Your task to perform on an android device: Go to battery settings Image 0: 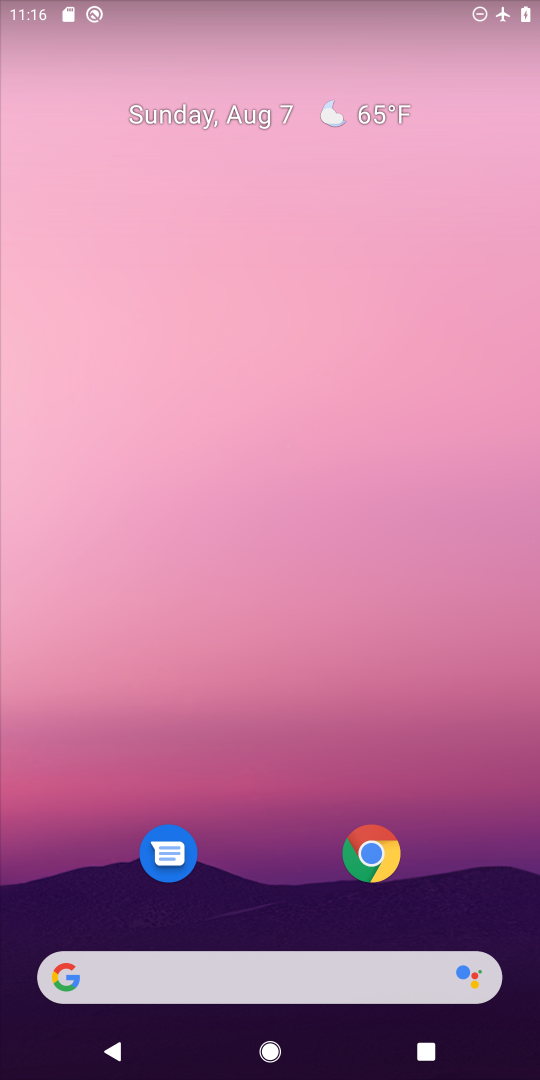
Step 0: drag from (298, 897) to (281, 31)
Your task to perform on an android device: Go to battery settings Image 1: 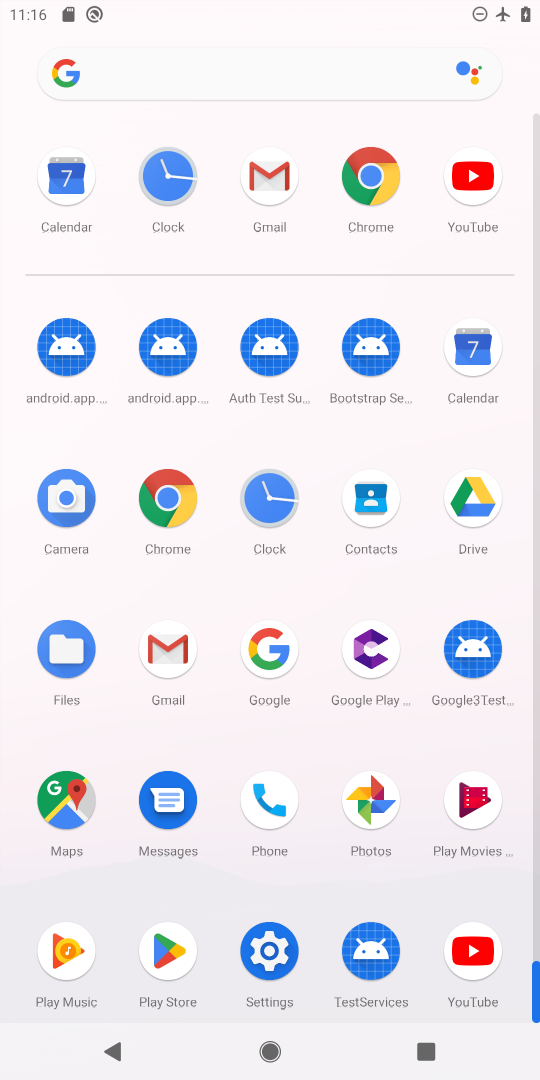
Step 1: click (248, 951)
Your task to perform on an android device: Go to battery settings Image 2: 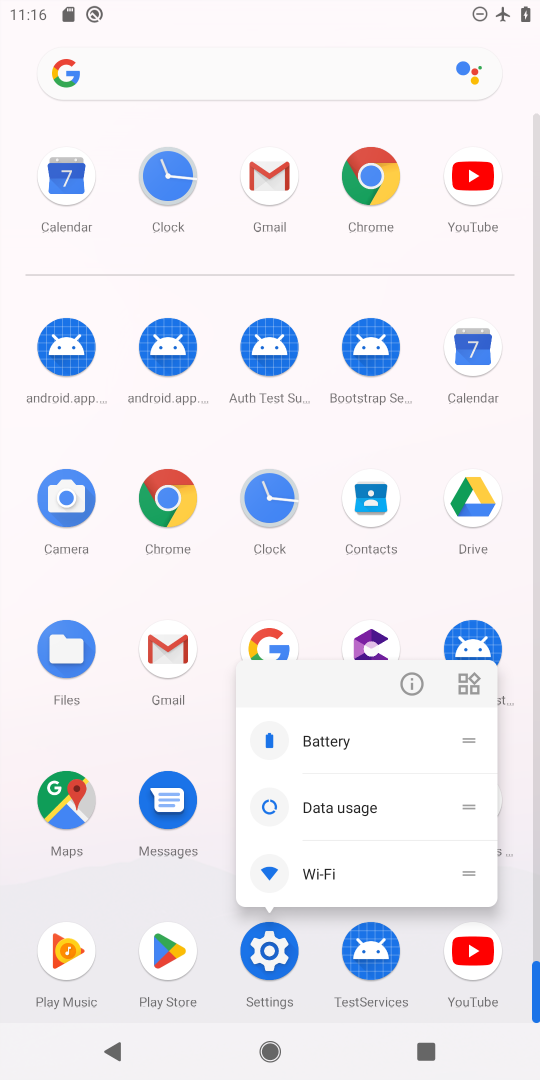
Step 2: click (273, 947)
Your task to perform on an android device: Go to battery settings Image 3: 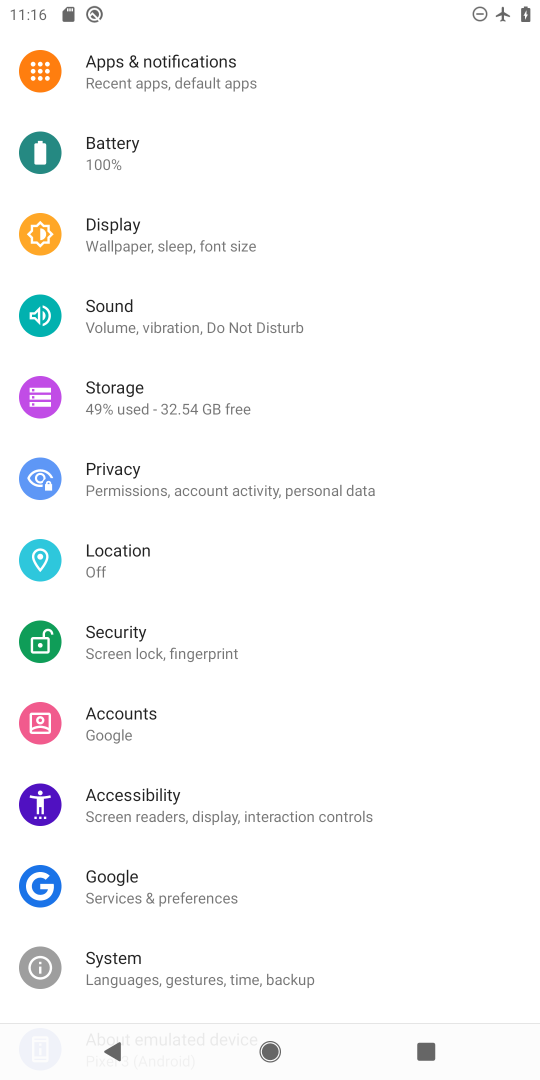
Step 3: click (128, 149)
Your task to perform on an android device: Go to battery settings Image 4: 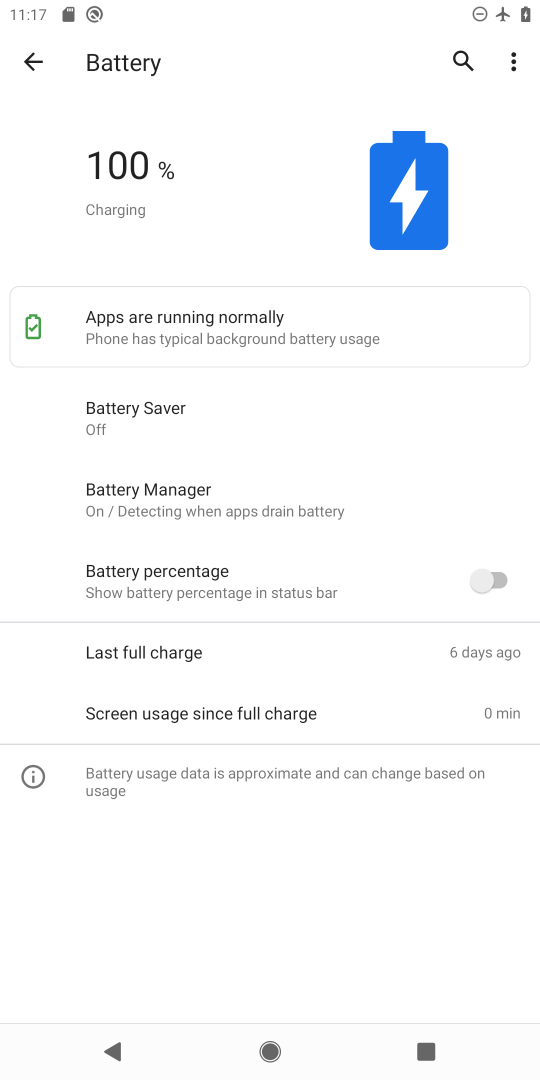
Step 4: task complete